Your task to perform on an android device: Go to privacy settings Image 0: 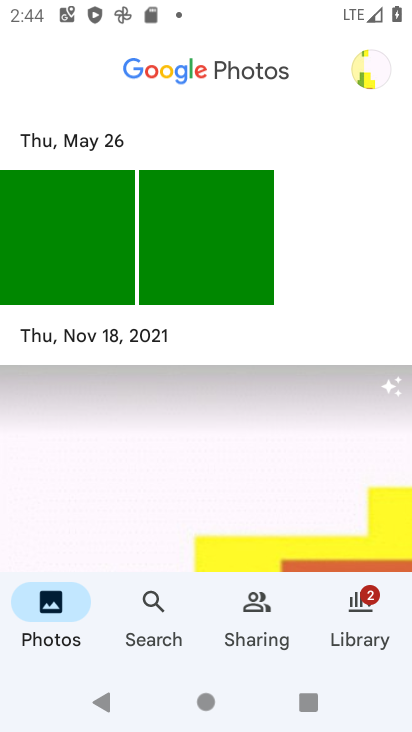
Step 0: press home button
Your task to perform on an android device: Go to privacy settings Image 1: 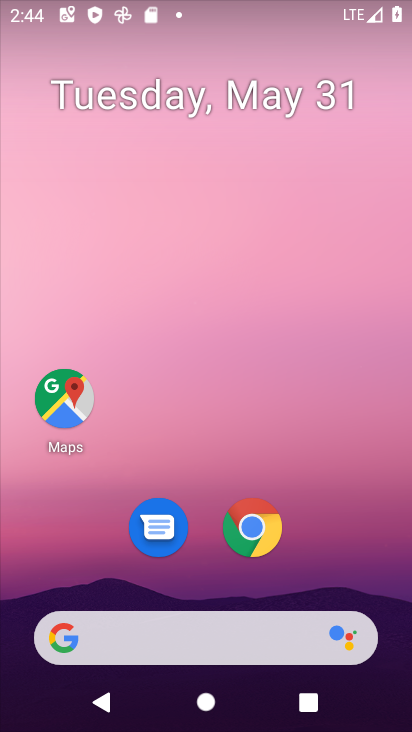
Step 1: drag from (381, 523) to (412, 139)
Your task to perform on an android device: Go to privacy settings Image 2: 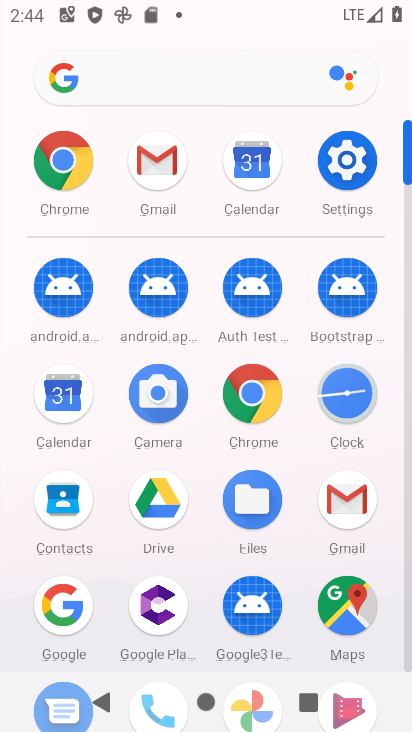
Step 2: click (338, 143)
Your task to perform on an android device: Go to privacy settings Image 3: 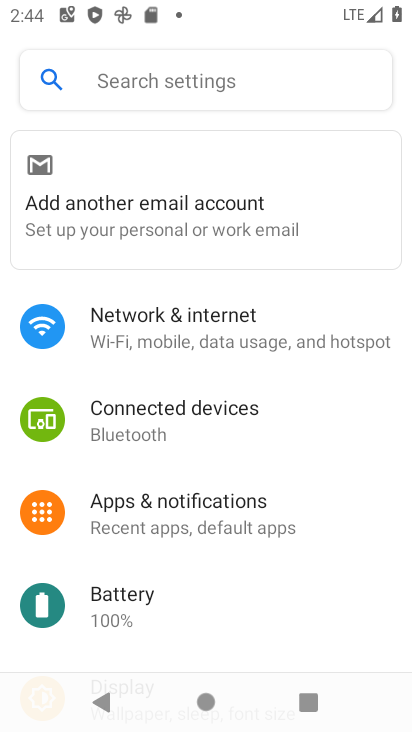
Step 3: drag from (241, 562) to (297, 184)
Your task to perform on an android device: Go to privacy settings Image 4: 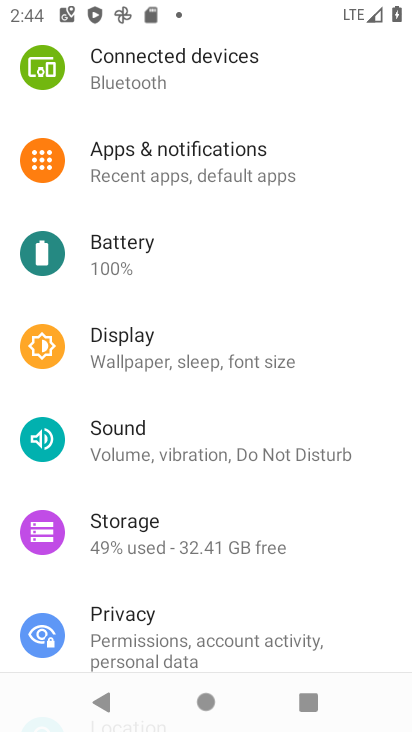
Step 4: drag from (204, 580) to (262, 233)
Your task to perform on an android device: Go to privacy settings Image 5: 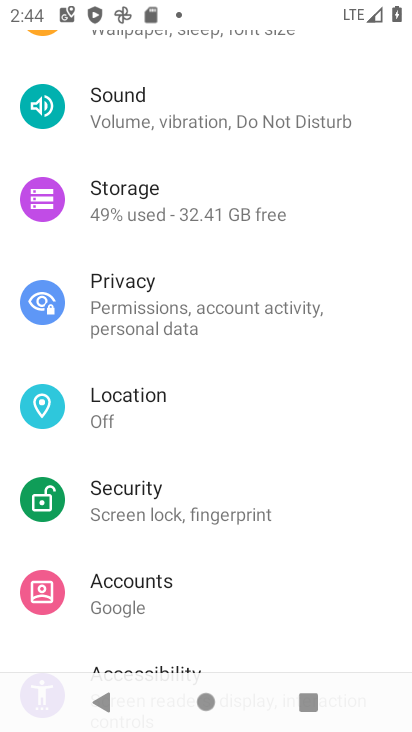
Step 5: click (185, 303)
Your task to perform on an android device: Go to privacy settings Image 6: 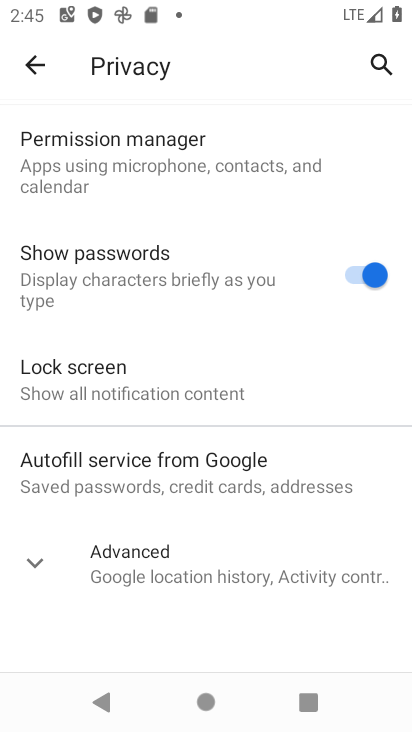
Step 6: task complete